Your task to perform on an android device: Open my contact list Image 0: 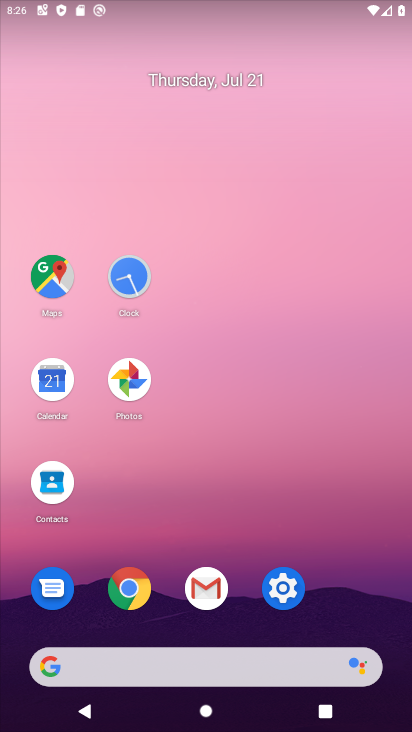
Step 0: click (52, 480)
Your task to perform on an android device: Open my contact list Image 1: 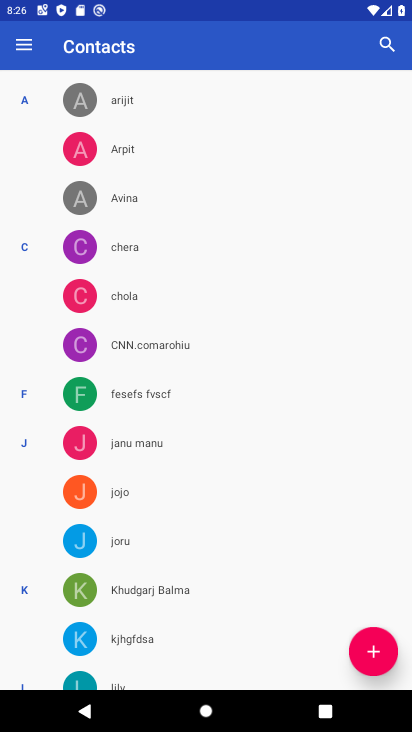
Step 1: task complete